Your task to perform on an android device: open app "Expedia: Hotels, Flights & Car" (install if not already installed) and enter user name: "crusader@outlook.com" and password: "Toryize" Image 0: 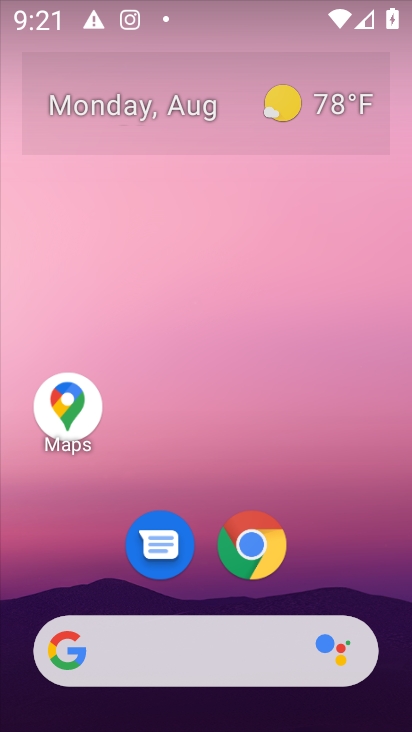
Step 0: press home button
Your task to perform on an android device: open app "Expedia: Hotels, Flights & Car" (install if not already installed) and enter user name: "crusader@outlook.com" and password: "Toryize" Image 1: 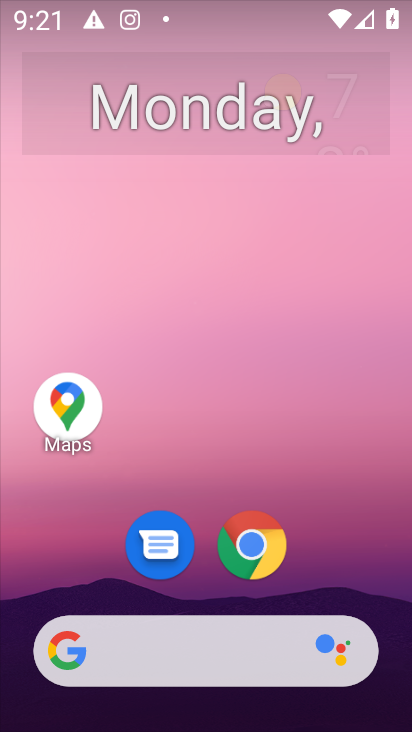
Step 1: drag from (359, 580) to (379, 98)
Your task to perform on an android device: open app "Expedia: Hotels, Flights & Car" (install if not already installed) and enter user name: "crusader@outlook.com" and password: "Toryize" Image 2: 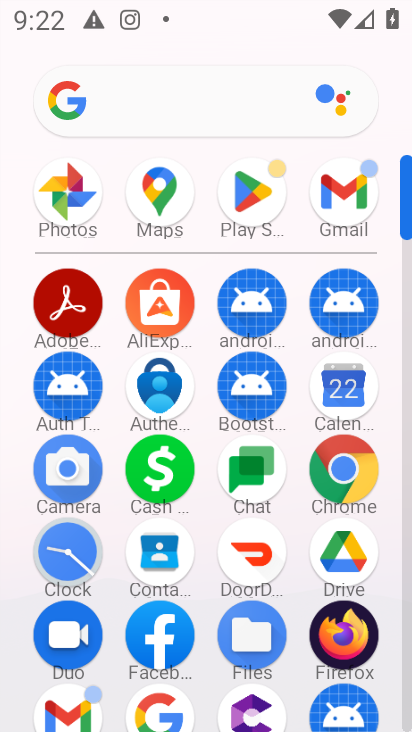
Step 2: click (247, 188)
Your task to perform on an android device: open app "Expedia: Hotels, Flights & Car" (install if not already installed) and enter user name: "crusader@outlook.com" and password: "Toryize" Image 3: 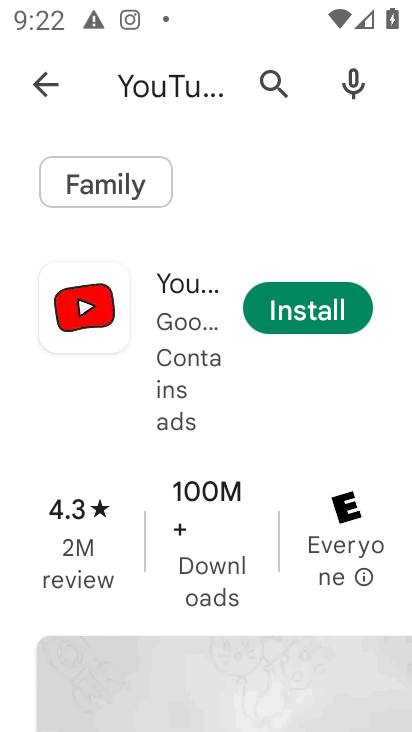
Step 3: press back button
Your task to perform on an android device: open app "Expedia: Hotels, Flights & Car" (install if not already installed) and enter user name: "crusader@outlook.com" and password: "Toryize" Image 4: 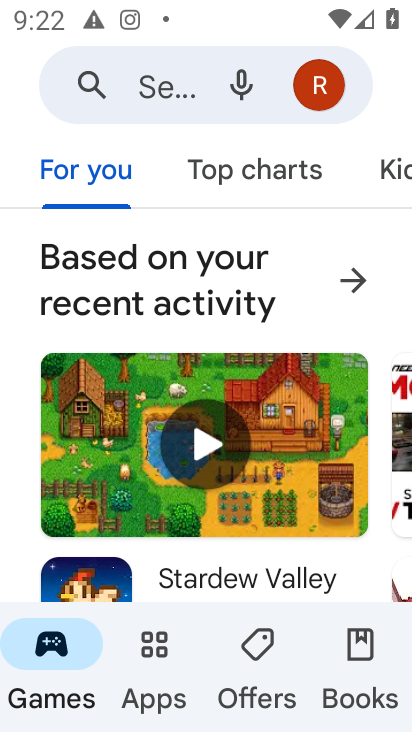
Step 4: click (143, 100)
Your task to perform on an android device: open app "Expedia: Hotels, Flights & Car" (install if not already installed) and enter user name: "crusader@outlook.com" and password: "Toryize" Image 5: 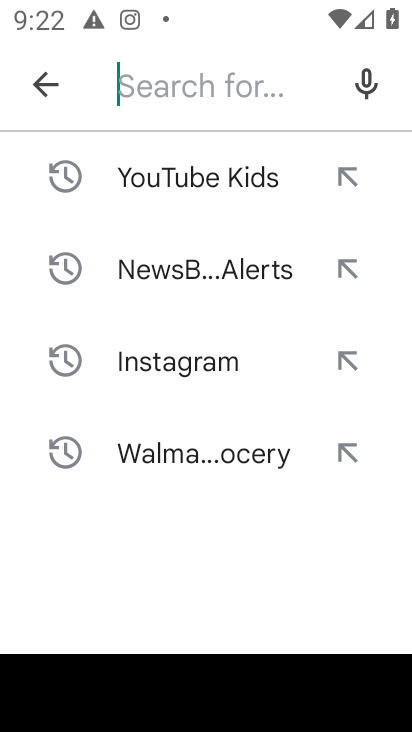
Step 5: type "Expedia: Hotels, Flights & Car"
Your task to perform on an android device: open app "Expedia: Hotels, Flights & Car" (install if not already installed) and enter user name: "crusader@outlook.com" and password: "Toryize" Image 6: 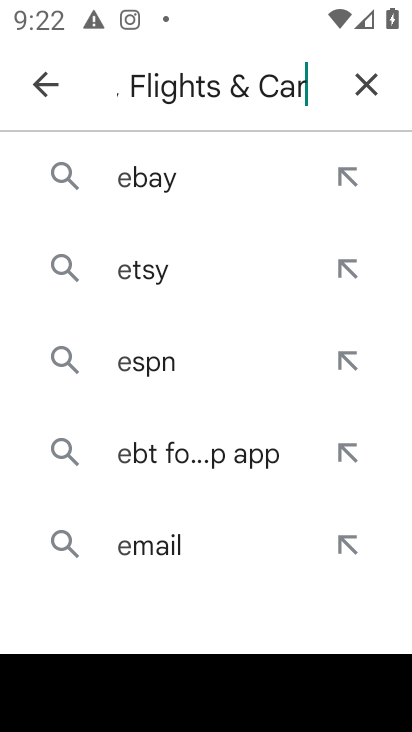
Step 6: press enter
Your task to perform on an android device: open app "Expedia: Hotels, Flights & Car" (install if not already installed) and enter user name: "crusader@outlook.com" and password: "Toryize" Image 7: 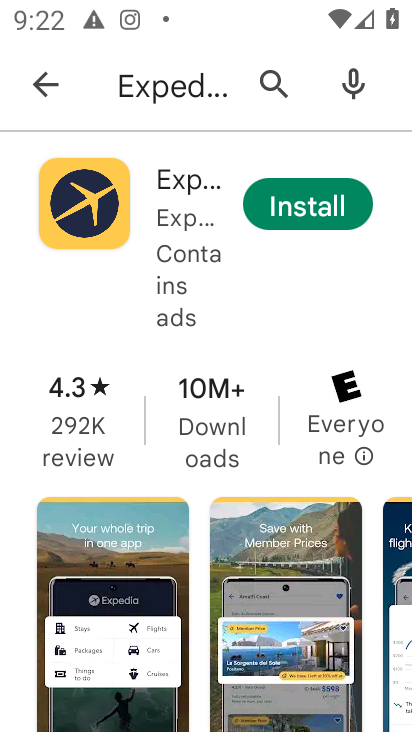
Step 7: click (310, 202)
Your task to perform on an android device: open app "Expedia: Hotels, Flights & Car" (install if not already installed) and enter user name: "crusader@outlook.com" and password: "Toryize" Image 8: 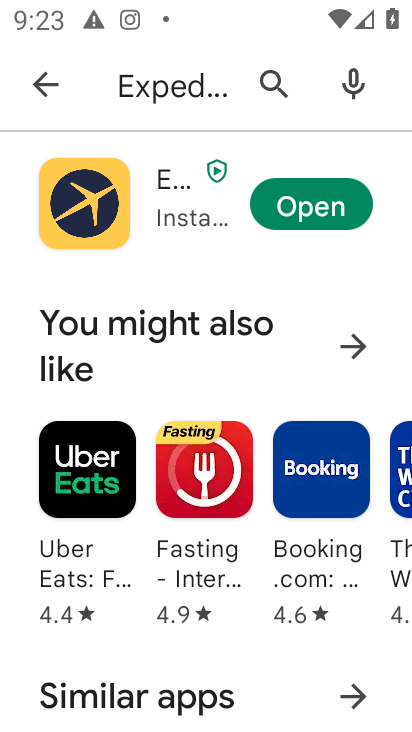
Step 8: click (337, 218)
Your task to perform on an android device: open app "Expedia: Hotels, Flights & Car" (install if not already installed) and enter user name: "crusader@outlook.com" and password: "Toryize" Image 9: 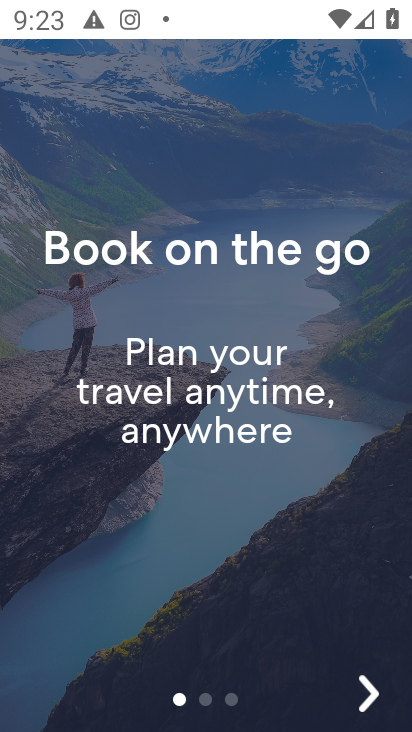
Step 9: click (362, 690)
Your task to perform on an android device: open app "Expedia: Hotels, Flights & Car" (install if not already installed) and enter user name: "crusader@outlook.com" and password: "Toryize" Image 10: 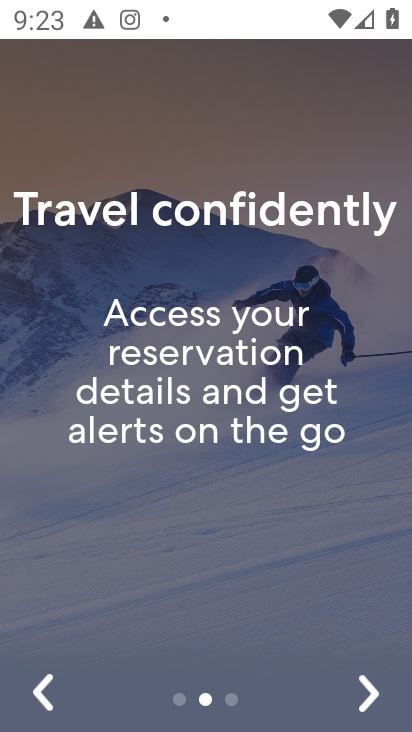
Step 10: click (350, 690)
Your task to perform on an android device: open app "Expedia: Hotels, Flights & Car" (install if not already installed) and enter user name: "crusader@outlook.com" and password: "Toryize" Image 11: 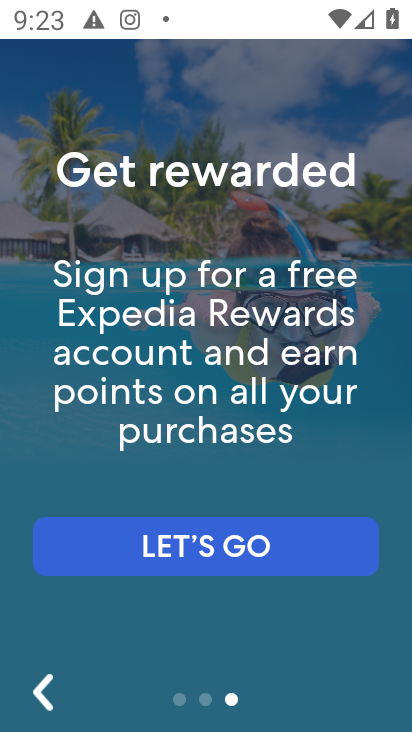
Step 11: click (294, 557)
Your task to perform on an android device: open app "Expedia: Hotels, Flights & Car" (install if not already installed) and enter user name: "crusader@outlook.com" and password: "Toryize" Image 12: 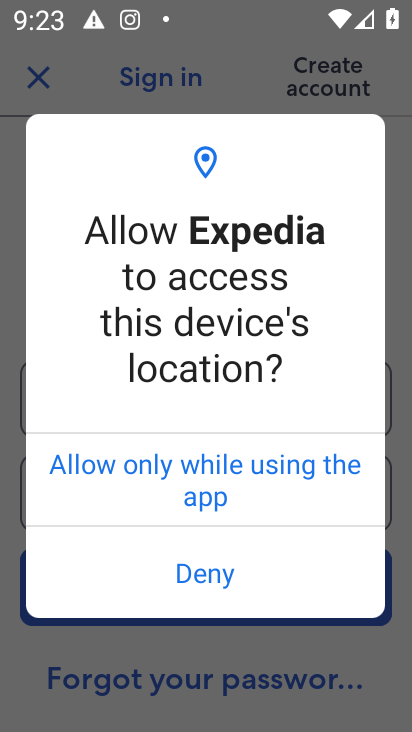
Step 12: click (245, 574)
Your task to perform on an android device: open app "Expedia: Hotels, Flights & Car" (install if not already installed) and enter user name: "crusader@outlook.com" and password: "Toryize" Image 13: 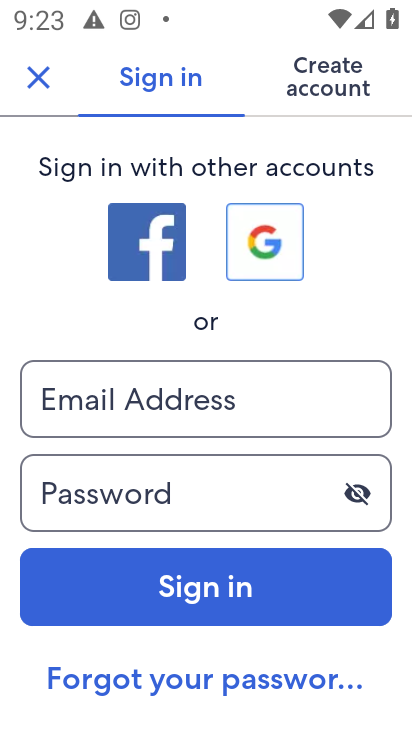
Step 13: click (230, 401)
Your task to perform on an android device: open app "Expedia: Hotels, Flights & Car" (install if not already installed) and enter user name: "crusader@outlook.com" and password: "Toryize" Image 14: 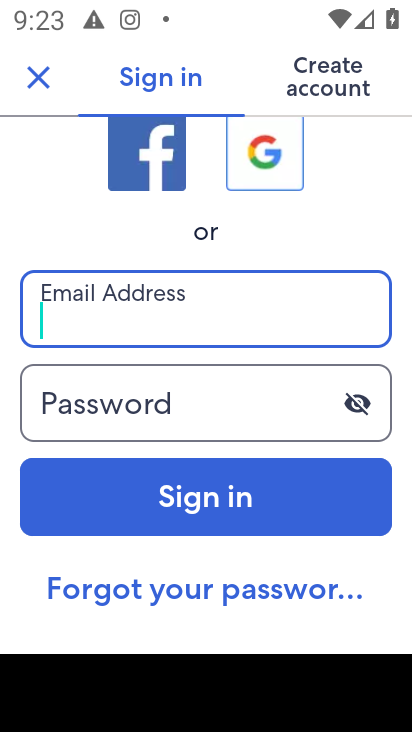
Step 14: type "crusader@outlook.com"
Your task to perform on an android device: open app "Expedia: Hotels, Flights & Car" (install if not already installed) and enter user name: "crusader@outlook.com" and password: "Toryize" Image 15: 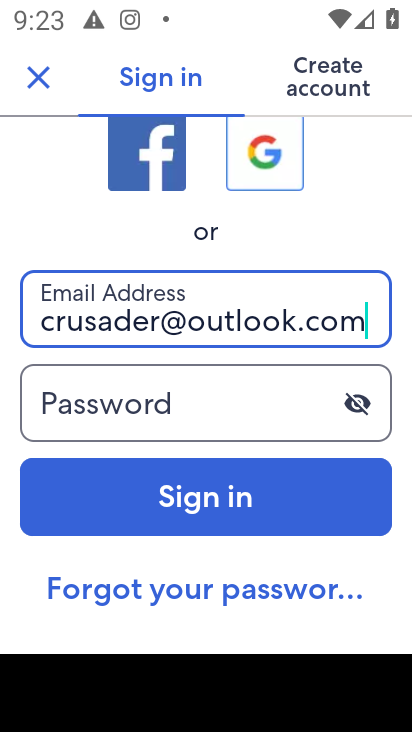
Step 15: press enter
Your task to perform on an android device: open app "Expedia: Hotels, Flights & Car" (install if not already installed) and enter user name: "crusader@outlook.com" and password: "Toryize" Image 16: 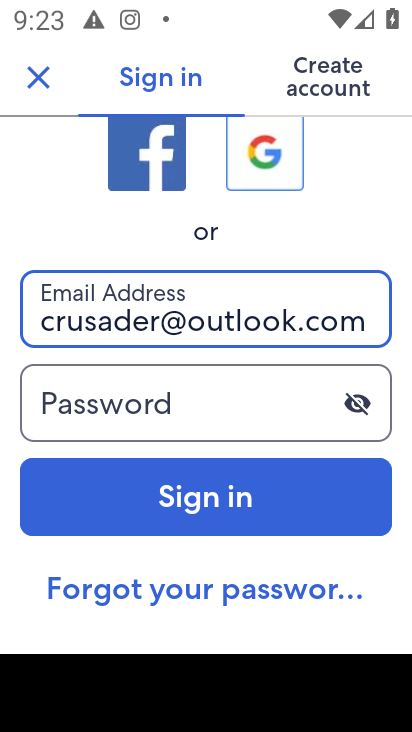
Step 16: click (86, 410)
Your task to perform on an android device: open app "Expedia: Hotels, Flights & Car" (install if not already installed) and enter user name: "crusader@outlook.com" and password: "Toryize" Image 17: 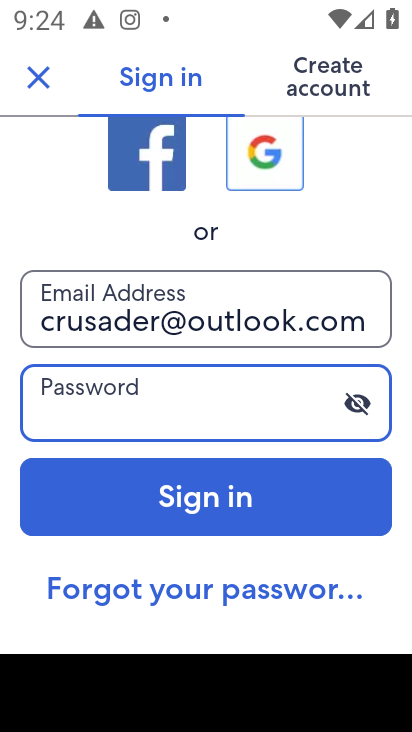
Step 17: type "Toryize"
Your task to perform on an android device: open app "Expedia: Hotels, Flights & Car" (install if not already installed) and enter user name: "crusader@outlook.com" and password: "Toryize" Image 18: 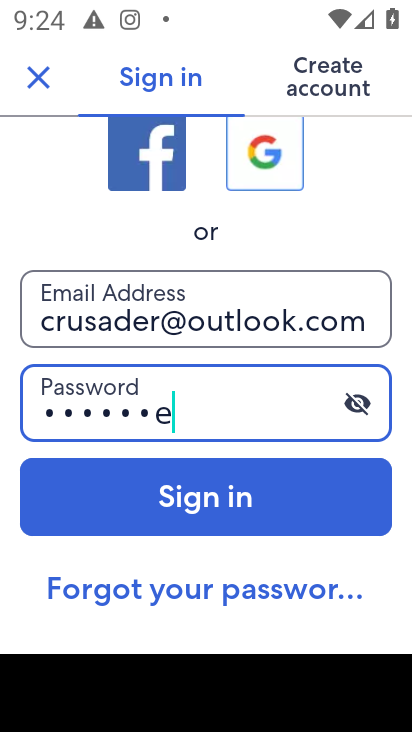
Step 18: press enter
Your task to perform on an android device: open app "Expedia: Hotels, Flights & Car" (install if not already installed) and enter user name: "crusader@outlook.com" and password: "Toryize" Image 19: 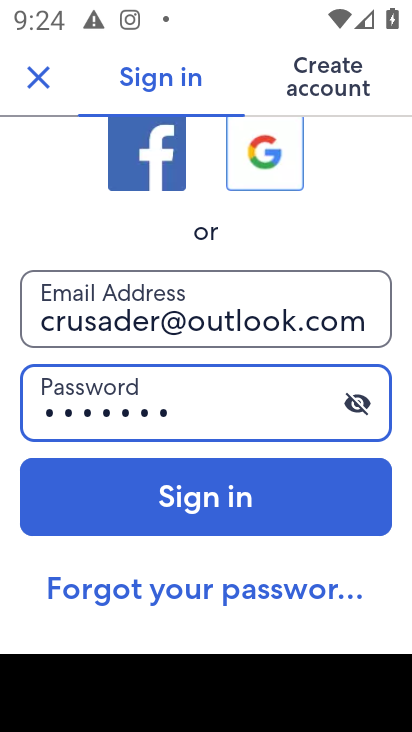
Step 19: task complete